Your task to perform on an android device: change keyboard looks Image 0: 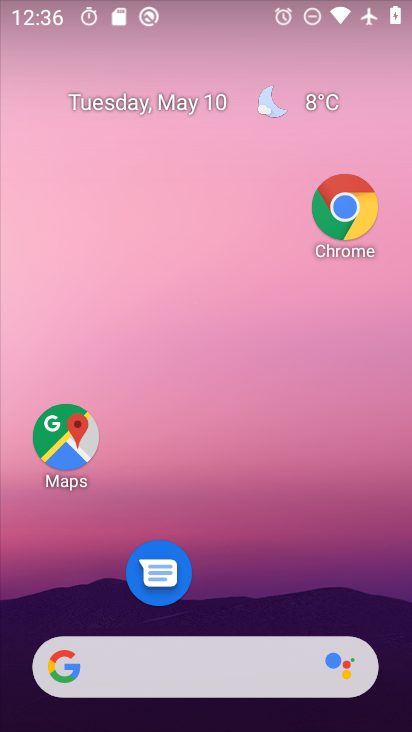
Step 0: drag from (325, 581) to (234, 97)
Your task to perform on an android device: change keyboard looks Image 1: 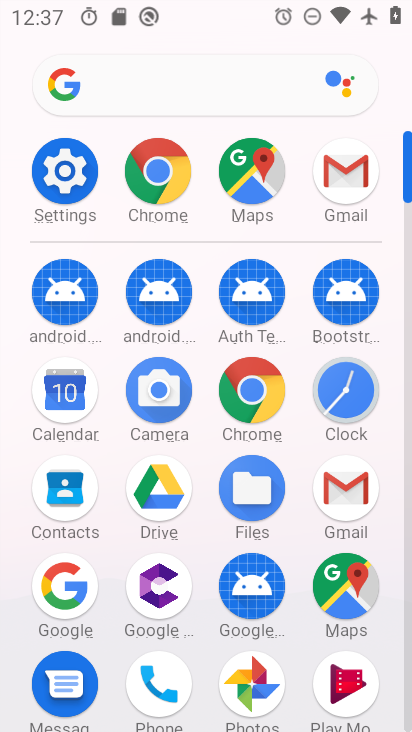
Step 1: click (58, 170)
Your task to perform on an android device: change keyboard looks Image 2: 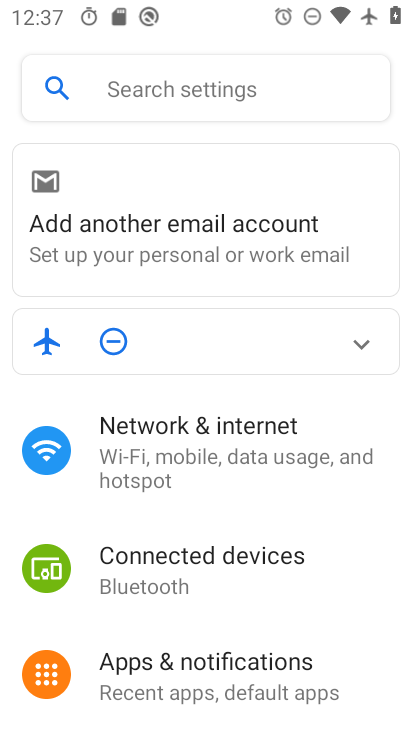
Step 2: drag from (278, 643) to (247, 206)
Your task to perform on an android device: change keyboard looks Image 3: 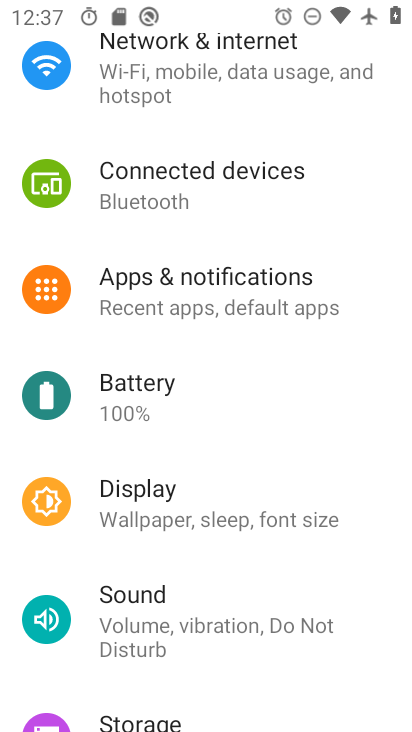
Step 3: drag from (273, 638) to (287, 191)
Your task to perform on an android device: change keyboard looks Image 4: 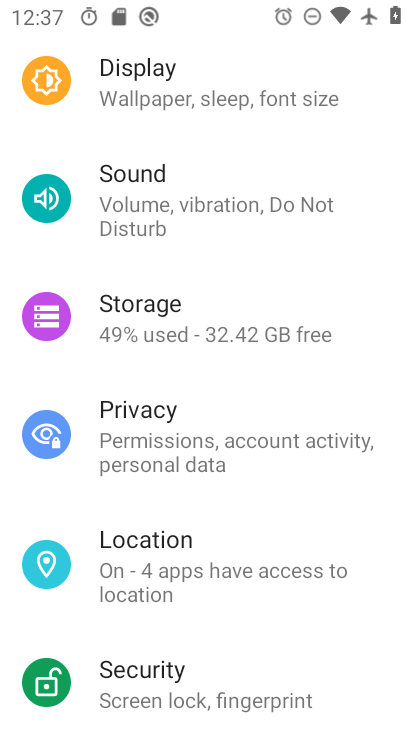
Step 4: drag from (267, 616) to (269, 293)
Your task to perform on an android device: change keyboard looks Image 5: 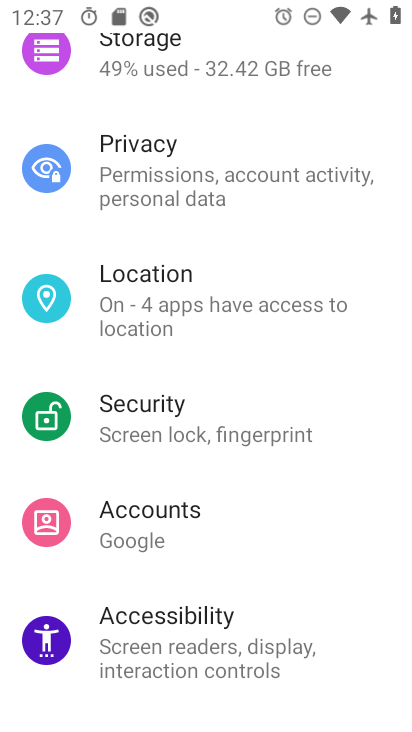
Step 5: drag from (256, 632) to (270, 290)
Your task to perform on an android device: change keyboard looks Image 6: 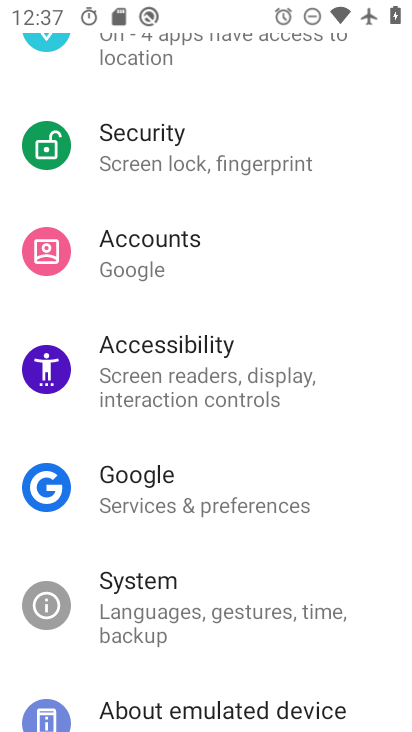
Step 6: click (237, 601)
Your task to perform on an android device: change keyboard looks Image 7: 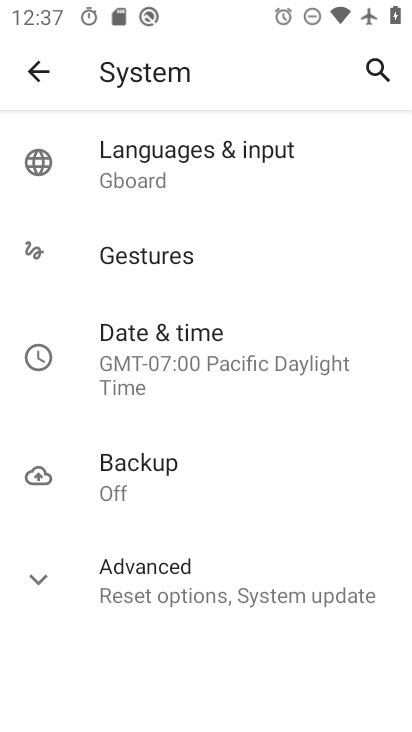
Step 7: click (208, 166)
Your task to perform on an android device: change keyboard looks Image 8: 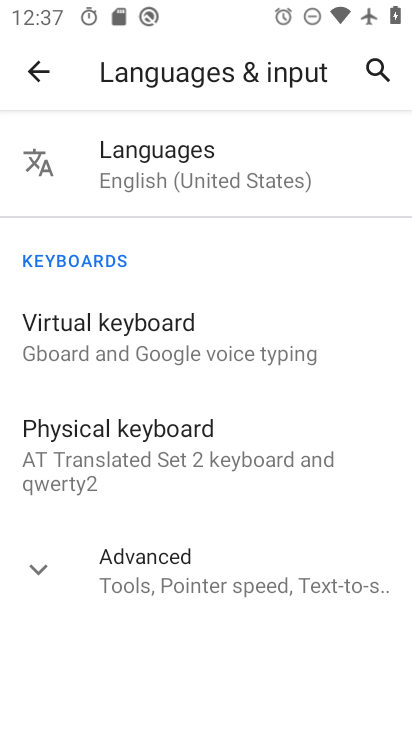
Step 8: click (115, 342)
Your task to perform on an android device: change keyboard looks Image 9: 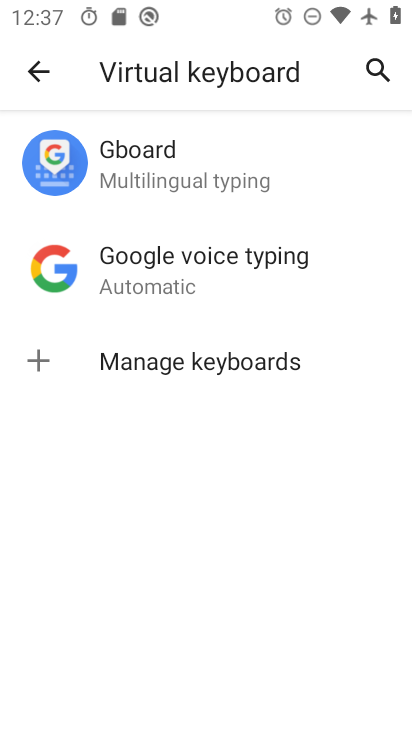
Step 9: click (131, 149)
Your task to perform on an android device: change keyboard looks Image 10: 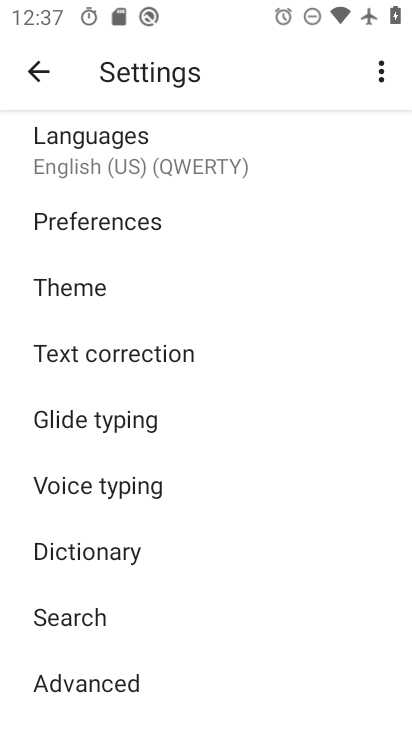
Step 10: click (100, 288)
Your task to perform on an android device: change keyboard looks Image 11: 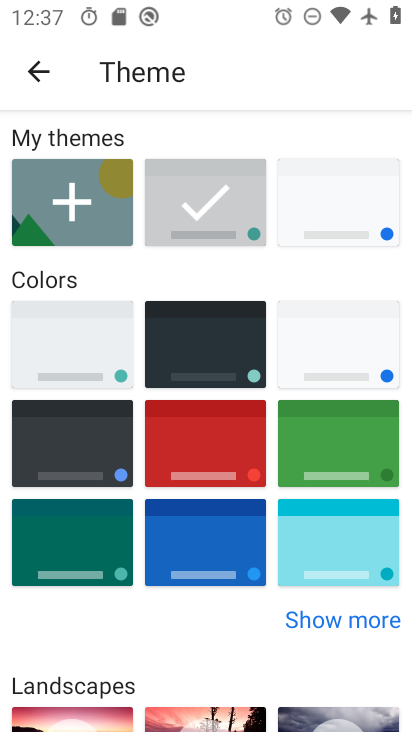
Step 11: click (358, 212)
Your task to perform on an android device: change keyboard looks Image 12: 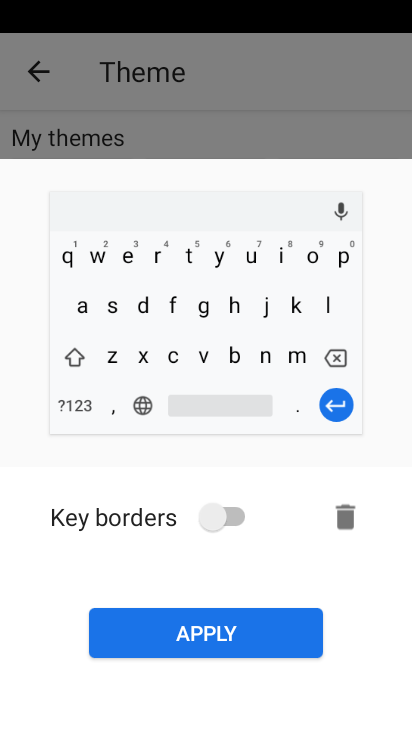
Step 12: click (241, 642)
Your task to perform on an android device: change keyboard looks Image 13: 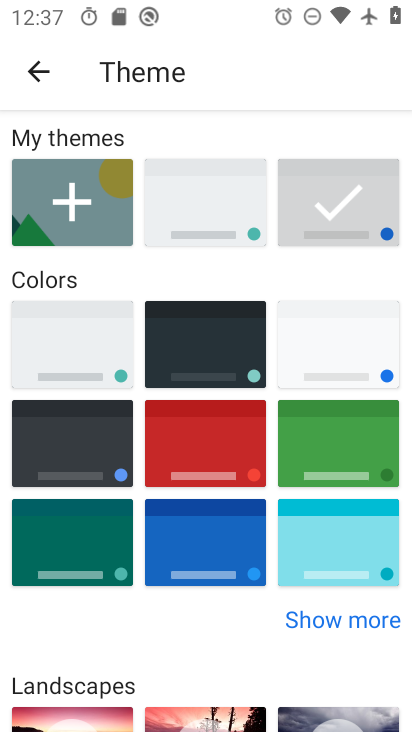
Step 13: task complete